Your task to perform on an android device: Go to Amazon Image 0: 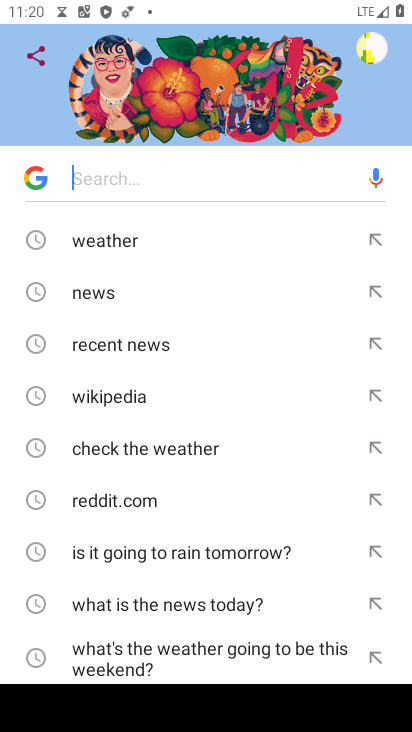
Step 0: press back button
Your task to perform on an android device: Go to Amazon Image 1: 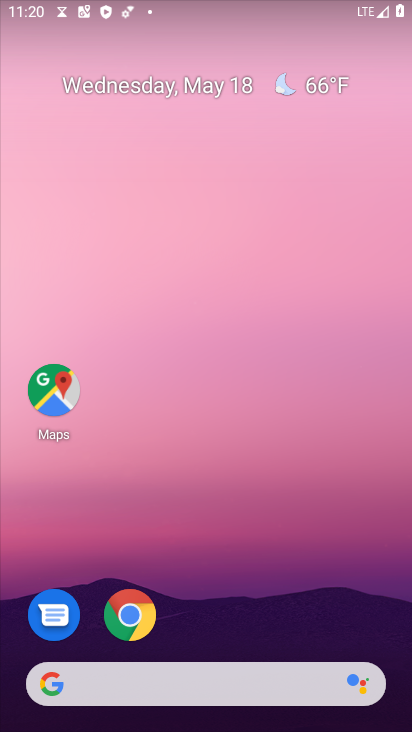
Step 1: drag from (239, 610) to (203, 20)
Your task to perform on an android device: Go to Amazon Image 2: 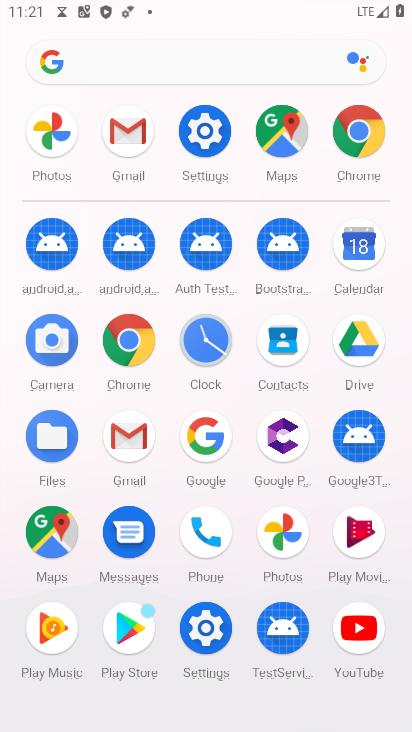
Step 2: click (131, 339)
Your task to perform on an android device: Go to Amazon Image 3: 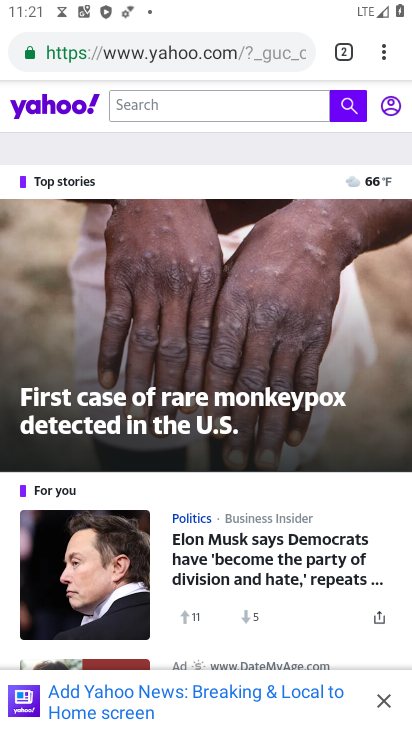
Step 3: click (179, 42)
Your task to perform on an android device: Go to Amazon Image 4: 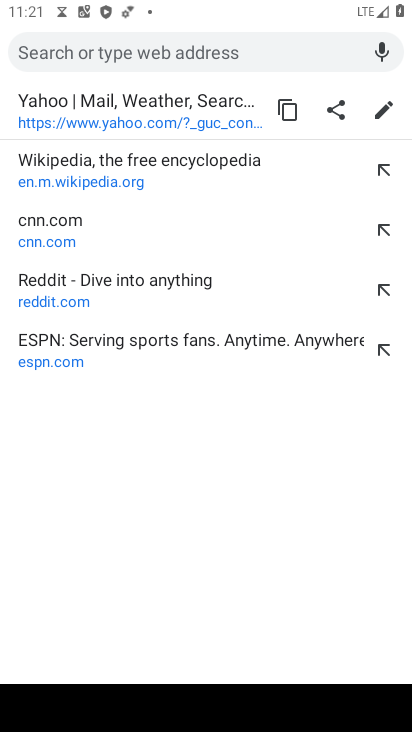
Step 4: type " Amazon"
Your task to perform on an android device: Go to Amazon Image 5: 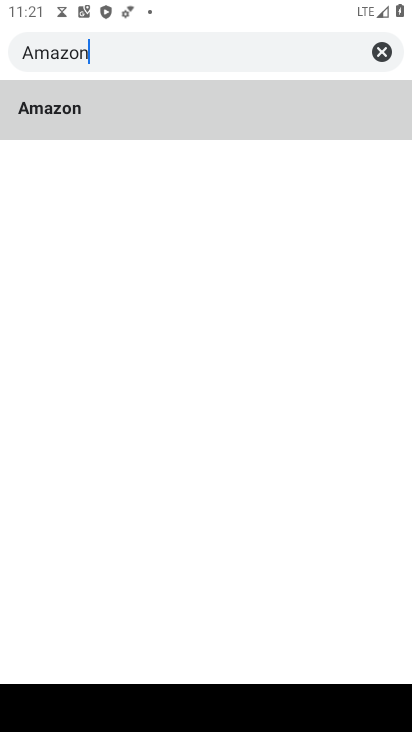
Step 5: type ""
Your task to perform on an android device: Go to Amazon Image 6: 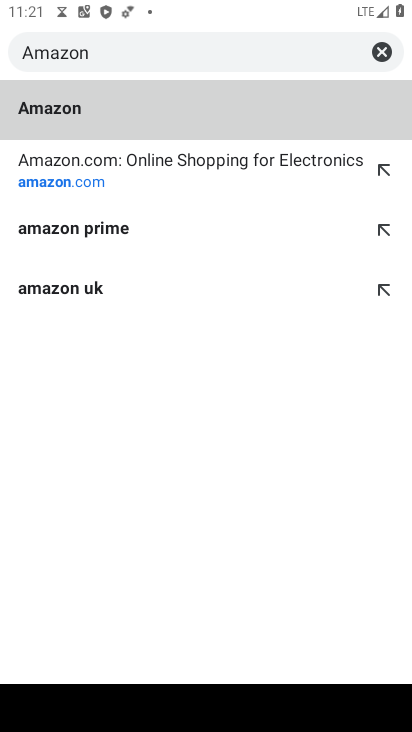
Step 6: click (93, 158)
Your task to perform on an android device: Go to Amazon Image 7: 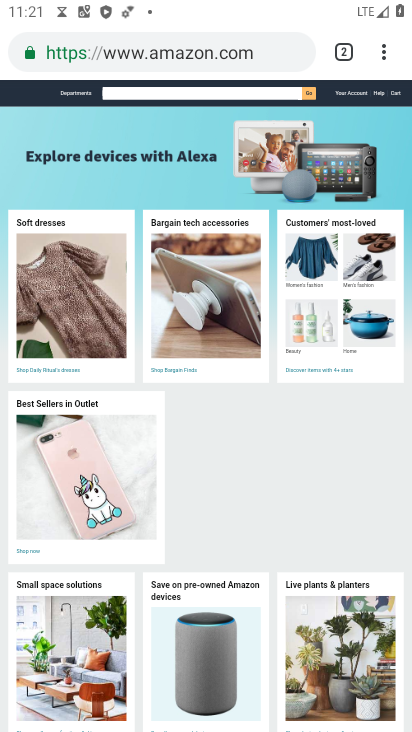
Step 7: task complete